Your task to perform on an android device: turn on priority inbox in the gmail app Image 0: 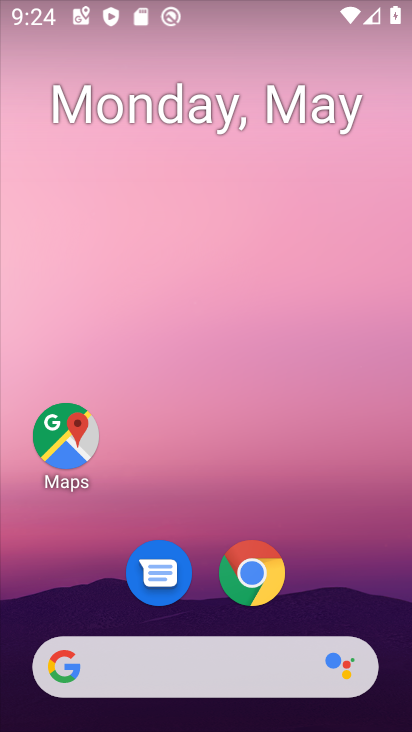
Step 0: drag from (334, 585) to (231, 89)
Your task to perform on an android device: turn on priority inbox in the gmail app Image 1: 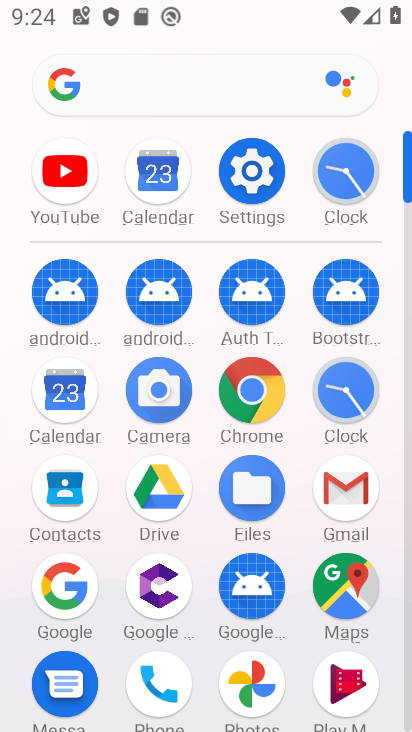
Step 1: click (349, 512)
Your task to perform on an android device: turn on priority inbox in the gmail app Image 2: 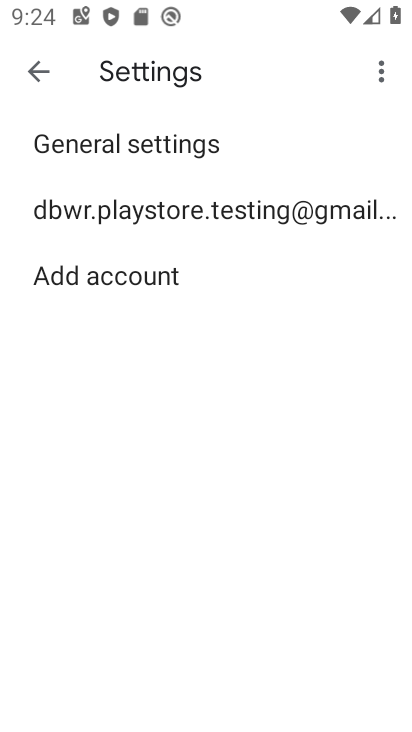
Step 2: press home button
Your task to perform on an android device: turn on priority inbox in the gmail app Image 3: 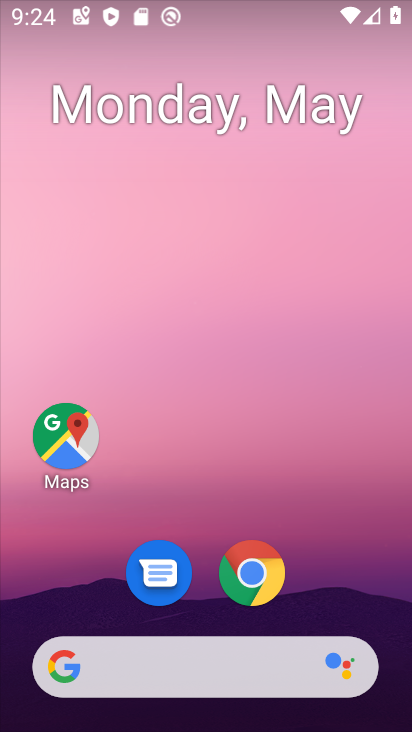
Step 3: drag from (356, 554) to (221, 5)
Your task to perform on an android device: turn on priority inbox in the gmail app Image 4: 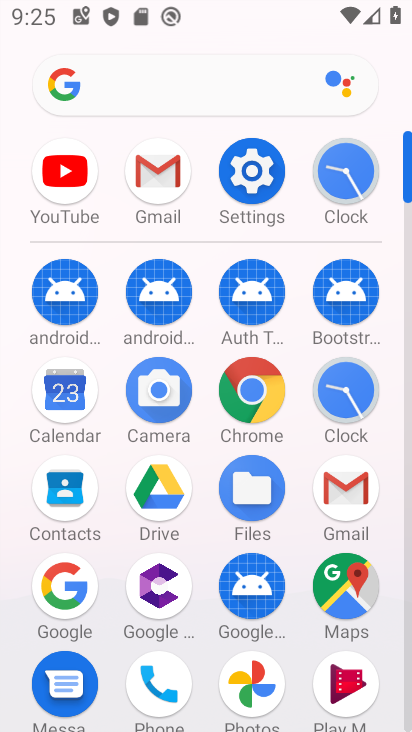
Step 4: click (362, 485)
Your task to perform on an android device: turn on priority inbox in the gmail app Image 5: 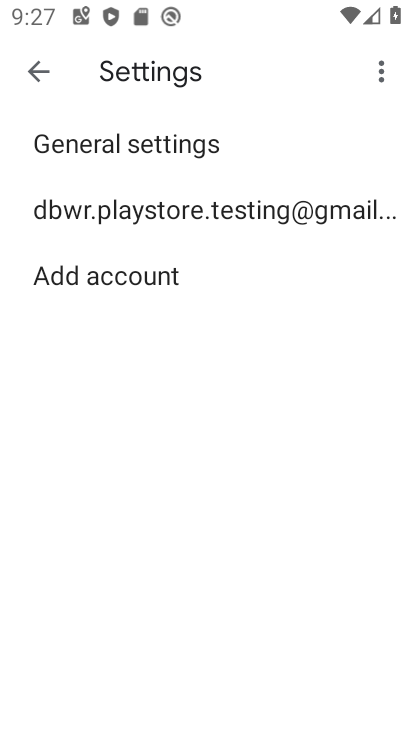
Step 5: click (153, 138)
Your task to perform on an android device: turn on priority inbox in the gmail app Image 6: 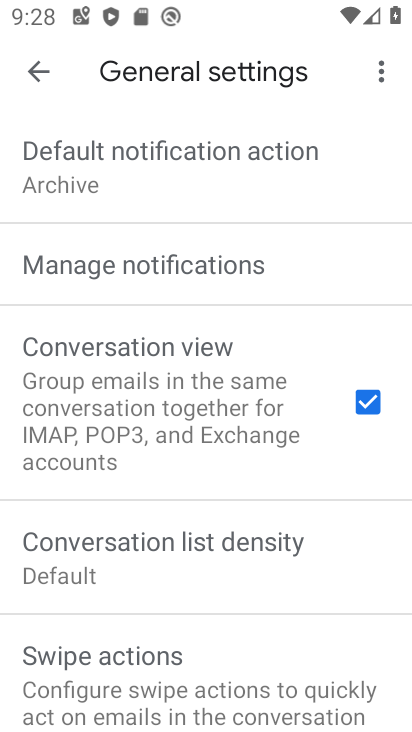
Step 6: task complete